Your task to perform on an android device: toggle pop-ups in chrome Image 0: 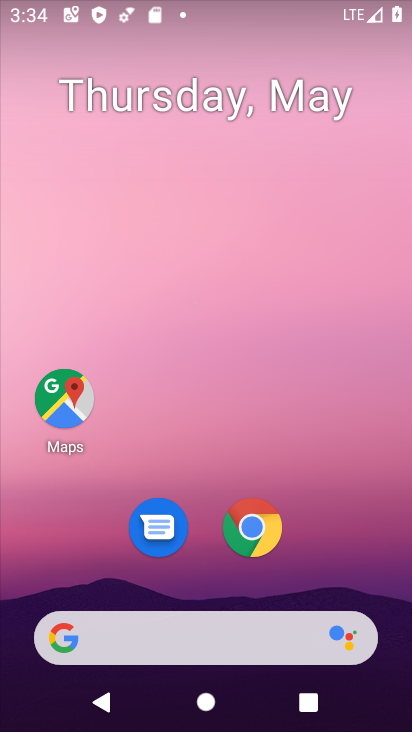
Step 0: click (253, 527)
Your task to perform on an android device: toggle pop-ups in chrome Image 1: 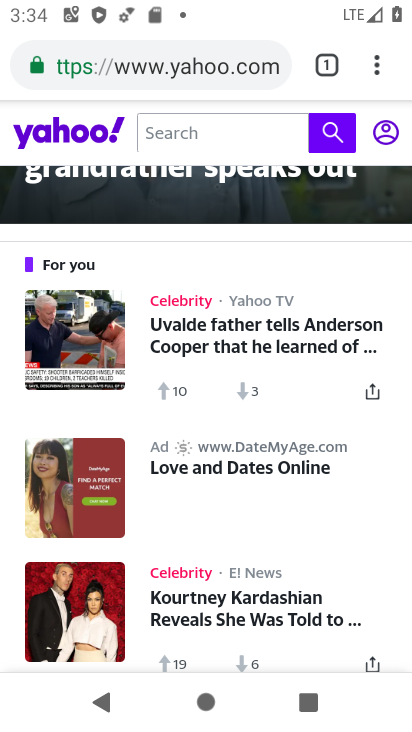
Step 1: click (374, 68)
Your task to perform on an android device: toggle pop-ups in chrome Image 2: 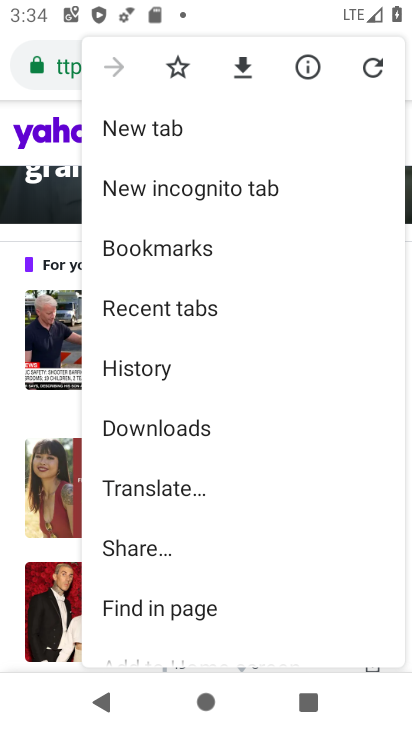
Step 2: drag from (244, 574) to (199, 209)
Your task to perform on an android device: toggle pop-ups in chrome Image 3: 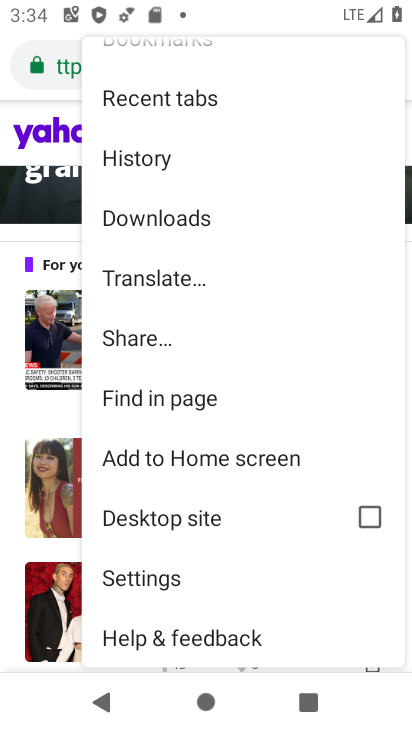
Step 3: click (155, 576)
Your task to perform on an android device: toggle pop-ups in chrome Image 4: 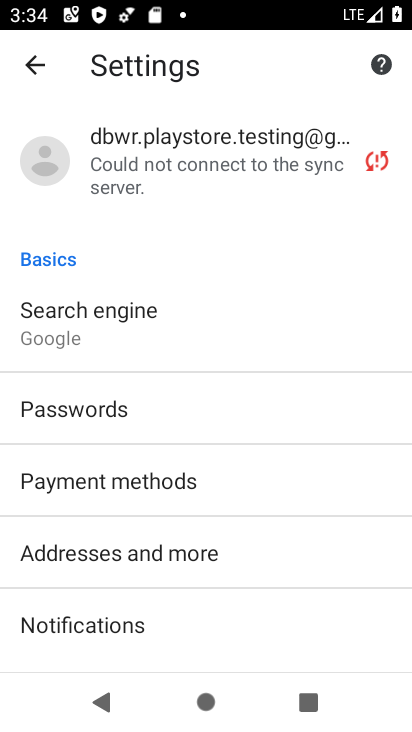
Step 4: drag from (229, 598) to (230, 267)
Your task to perform on an android device: toggle pop-ups in chrome Image 5: 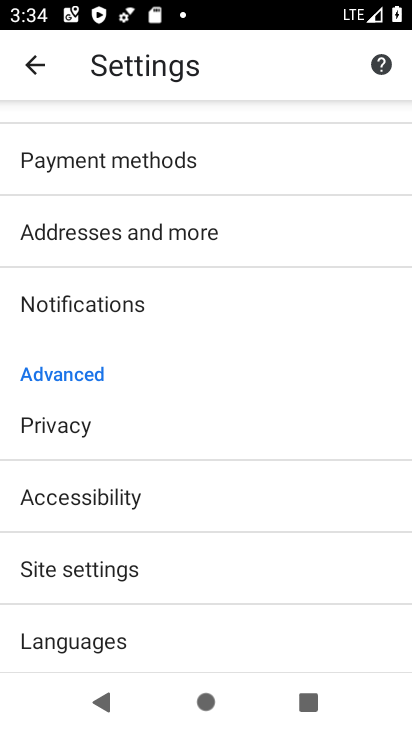
Step 5: click (89, 567)
Your task to perform on an android device: toggle pop-ups in chrome Image 6: 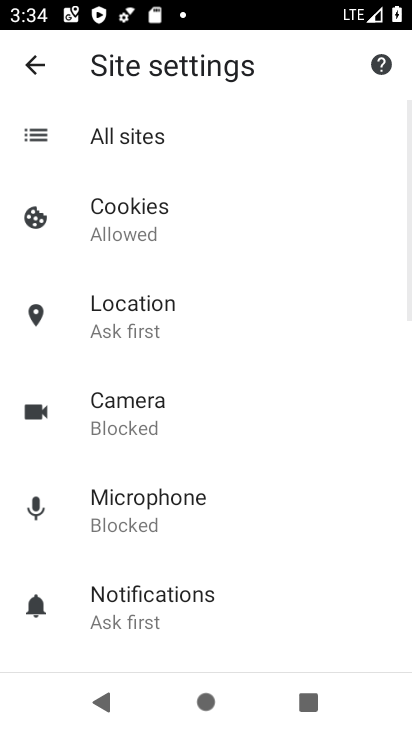
Step 6: drag from (252, 597) to (225, 247)
Your task to perform on an android device: toggle pop-ups in chrome Image 7: 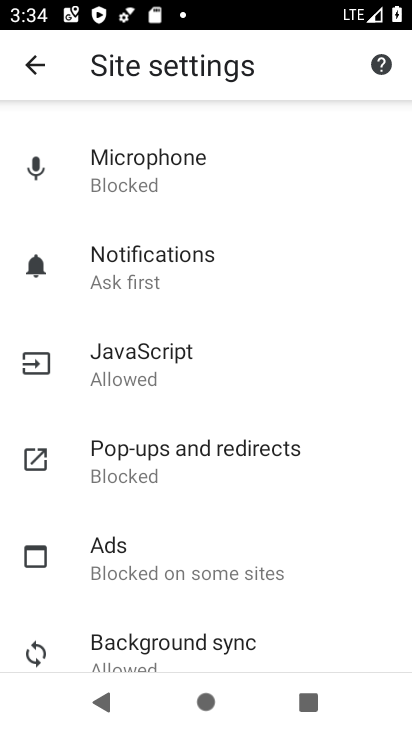
Step 7: click (149, 443)
Your task to perform on an android device: toggle pop-ups in chrome Image 8: 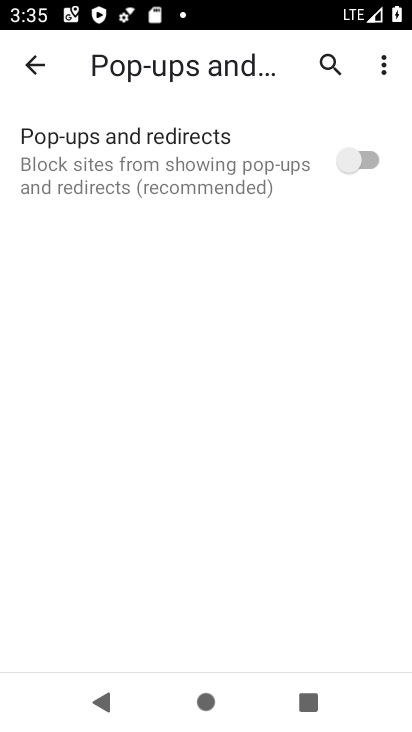
Step 8: click (369, 161)
Your task to perform on an android device: toggle pop-ups in chrome Image 9: 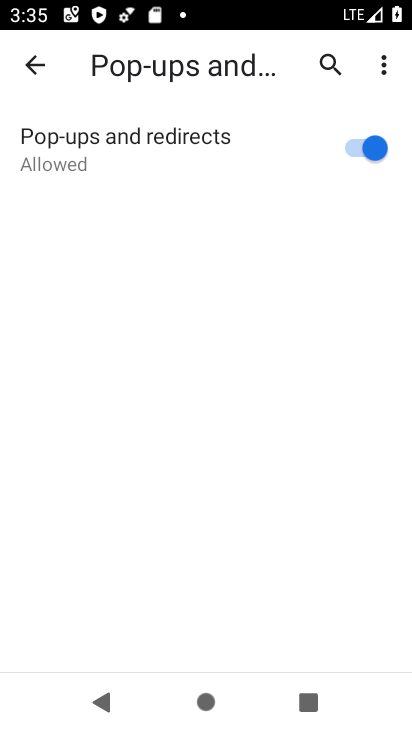
Step 9: task complete